Your task to perform on an android device: Open calendar and show me the second week of next month Image 0: 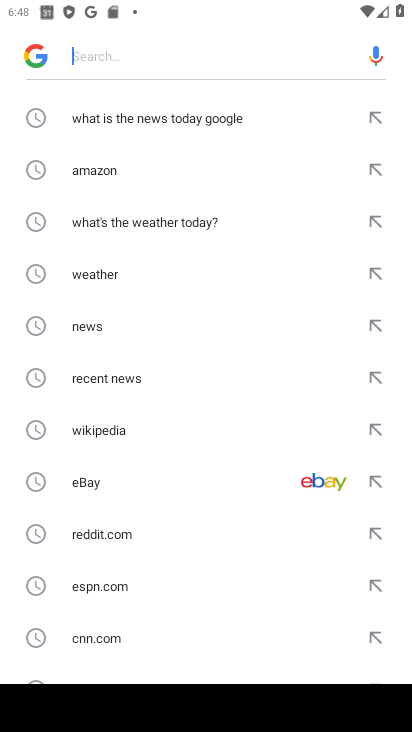
Step 0: press home button
Your task to perform on an android device: Open calendar and show me the second week of next month Image 1: 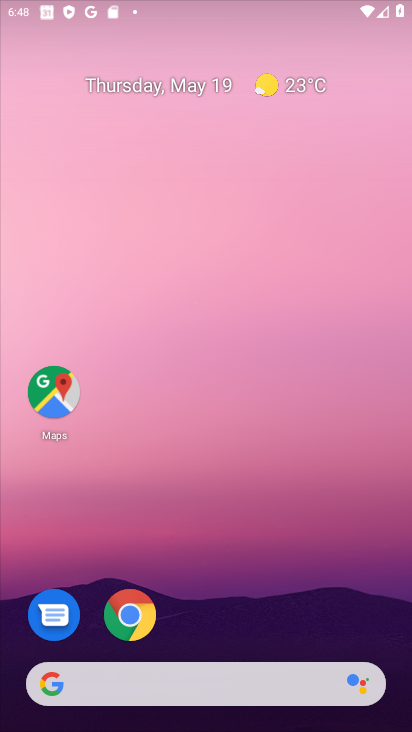
Step 1: drag from (393, 625) to (358, 61)
Your task to perform on an android device: Open calendar and show me the second week of next month Image 2: 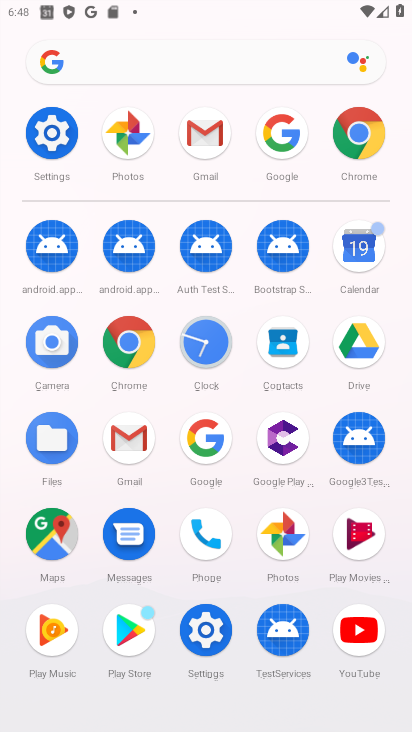
Step 2: click (357, 265)
Your task to perform on an android device: Open calendar and show me the second week of next month Image 3: 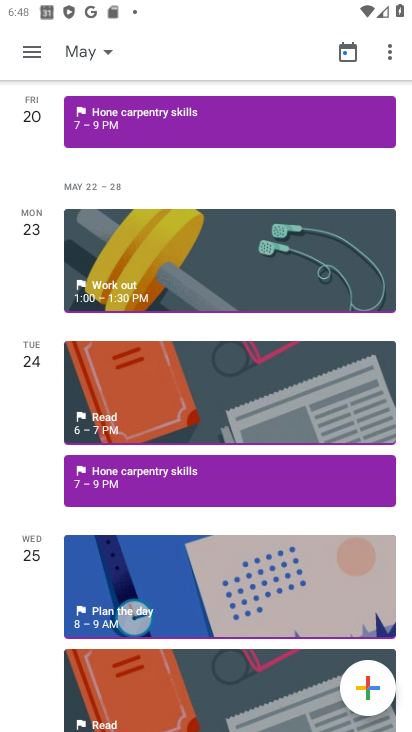
Step 3: click (75, 50)
Your task to perform on an android device: Open calendar and show me the second week of next month Image 4: 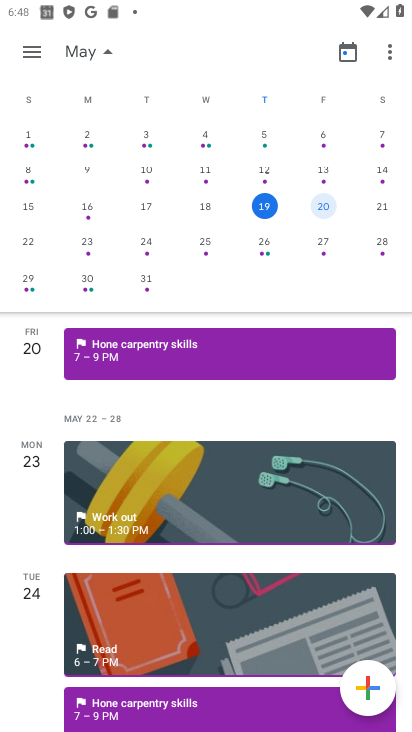
Step 4: drag from (352, 212) to (103, 204)
Your task to perform on an android device: Open calendar and show me the second week of next month Image 5: 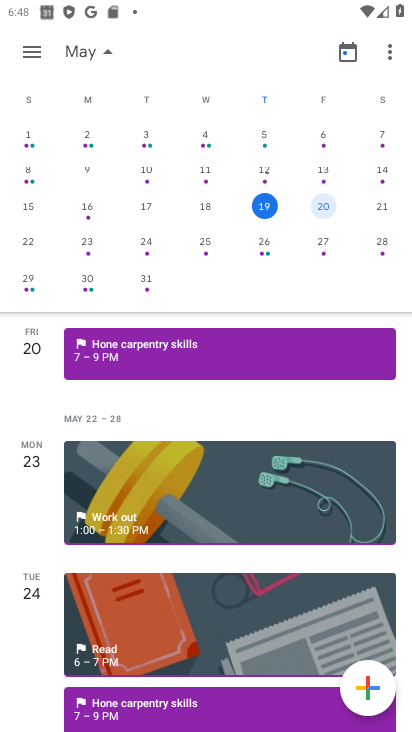
Step 5: drag from (337, 224) to (52, 189)
Your task to perform on an android device: Open calendar and show me the second week of next month Image 6: 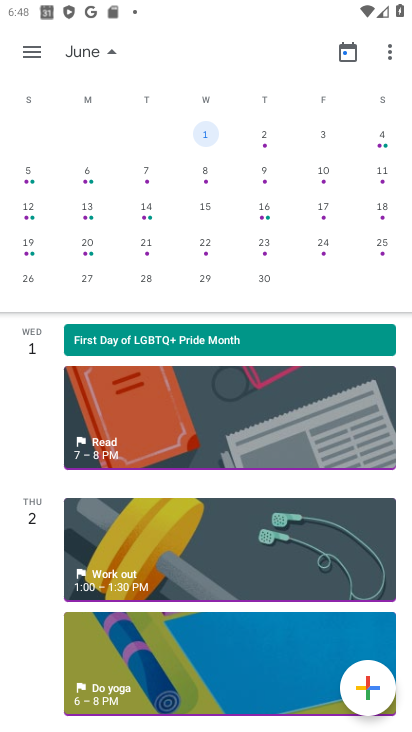
Step 6: click (87, 209)
Your task to perform on an android device: Open calendar and show me the second week of next month Image 7: 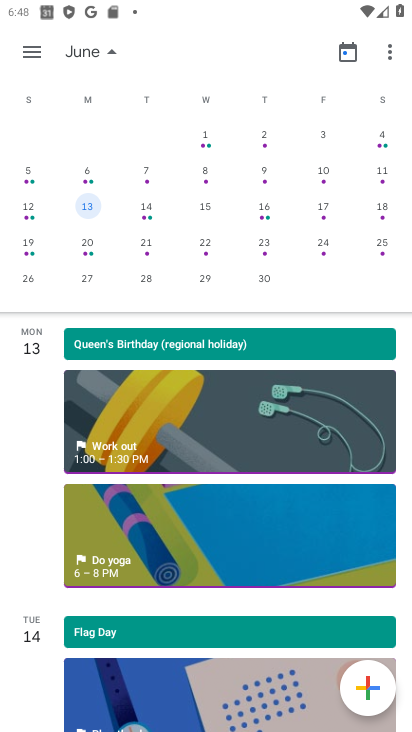
Step 7: task complete